Your task to perform on an android device: refresh tabs in the chrome app Image 0: 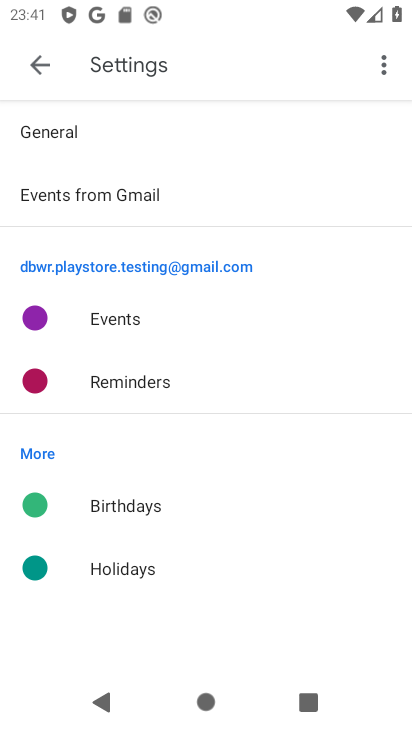
Step 0: press home button
Your task to perform on an android device: refresh tabs in the chrome app Image 1: 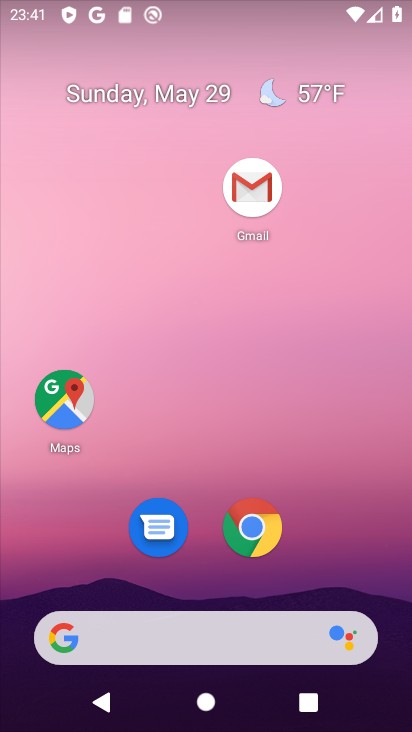
Step 1: click (251, 526)
Your task to perform on an android device: refresh tabs in the chrome app Image 2: 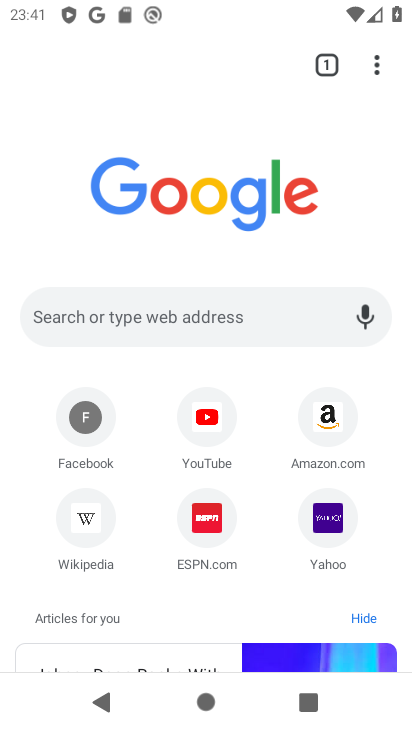
Step 2: click (377, 65)
Your task to perform on an android device: refresh tabs in the chrome app Image 3: 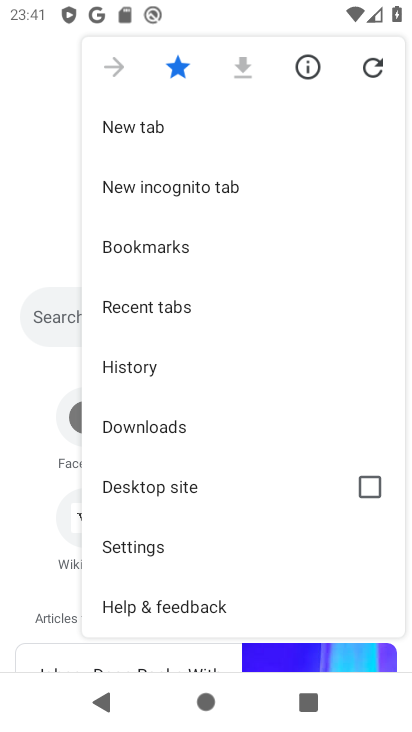
Step 3: click (377, 65)
Your task to perform on an android device: refresh tabs in the chrome app Image 4: 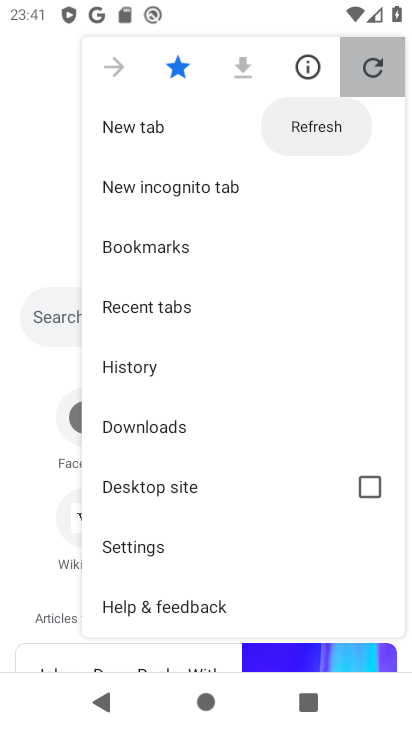
Step 4: click (377, 65)
Your task to perform on an android device: refresh tabs in the chrome app Image 5: 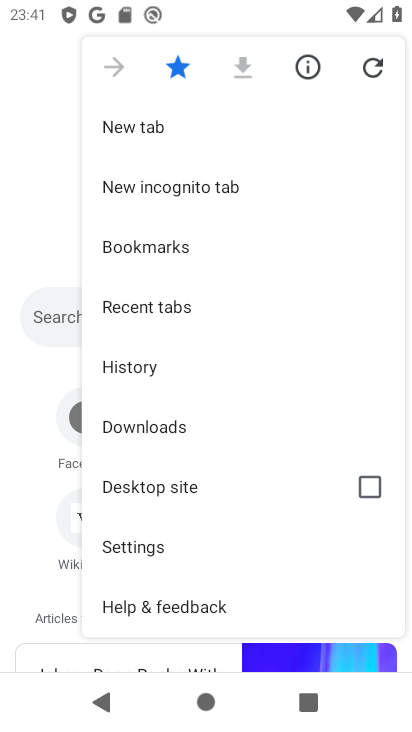
Step 5: click (384, 75)
Your task to perform on an android device: refresh tabs in the chrome app Image 6: 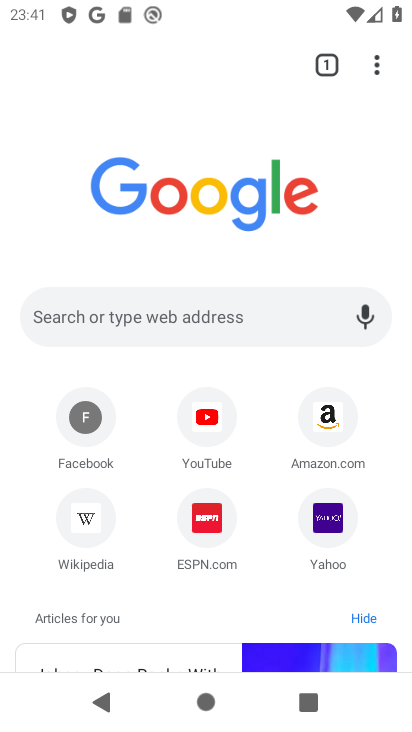
Step 6: task complete